Your task to perform on an android device: turn off priority inbox in the gmail app Image 0: 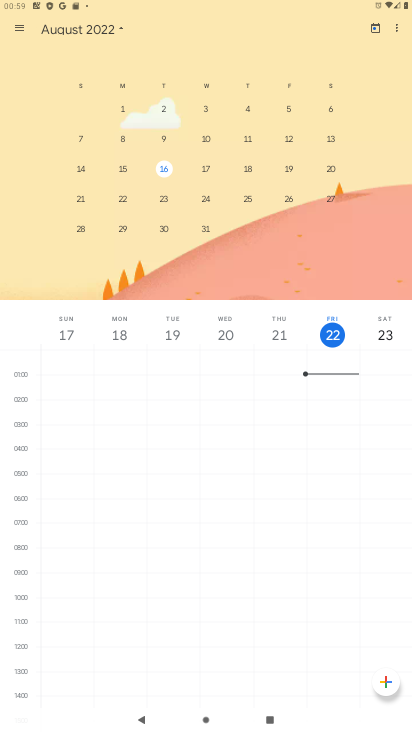
Step 0: press home button
Your task to perform on an android device: turn off priority inbox in the gmail app Image 1: 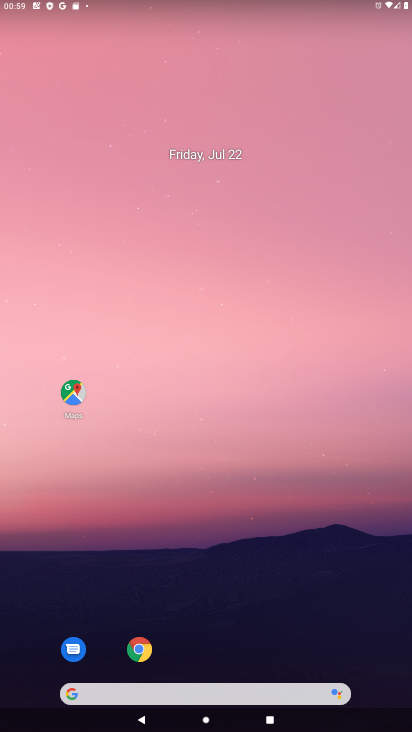
Step 1: drag from (258, 578) to (213, 158)
Your task to perform on an android device: turn off priority inbox in the gmail app Image 2: 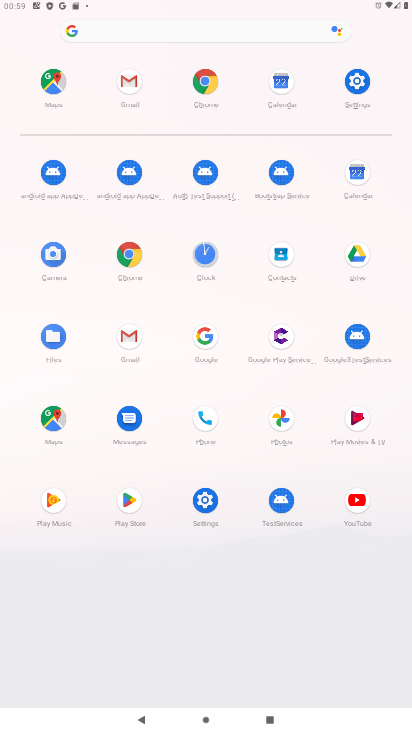
Step 2: click (136, 332)
Your task to perform on an android device: turn off priority inbox in the gmail app Image 3: 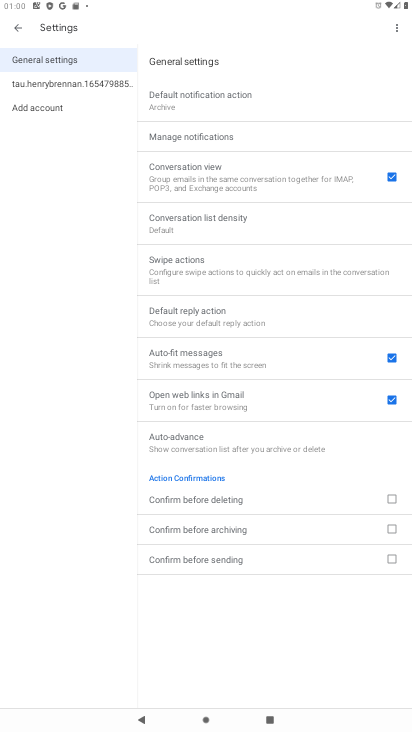
Step 3: click (108, 81)
Your task to perform on an android device: turn off priority inbox in the gmail app Image 4: 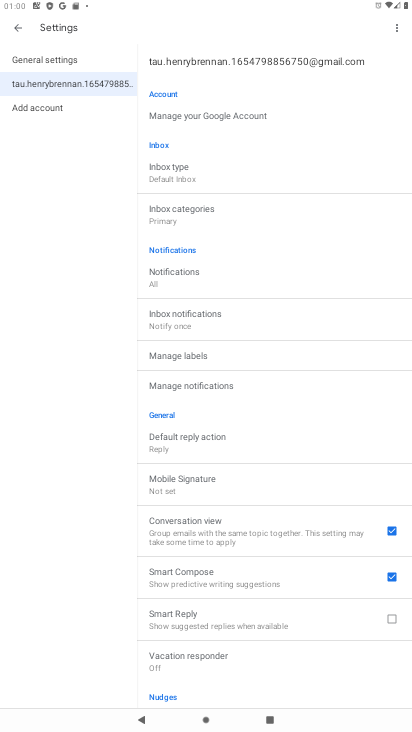
Step 4: click (167, 169)
Your task to perform on an android device: turn off priority inbox in the gmail app Image 5: 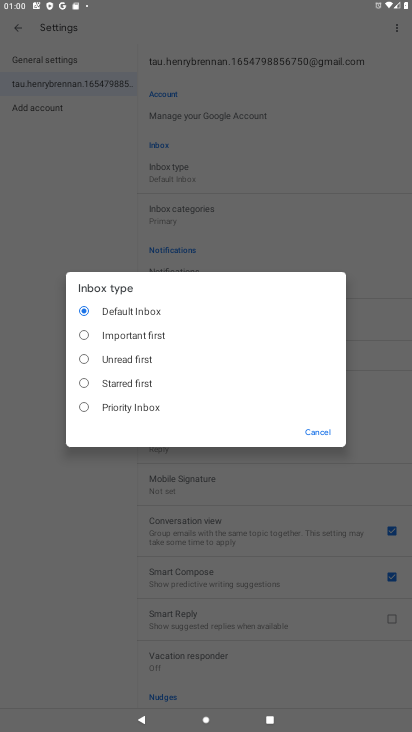
Step 5: task complete